Your task to perform on an android device: Search for the best gaming monitor on Best Buy Image 0: 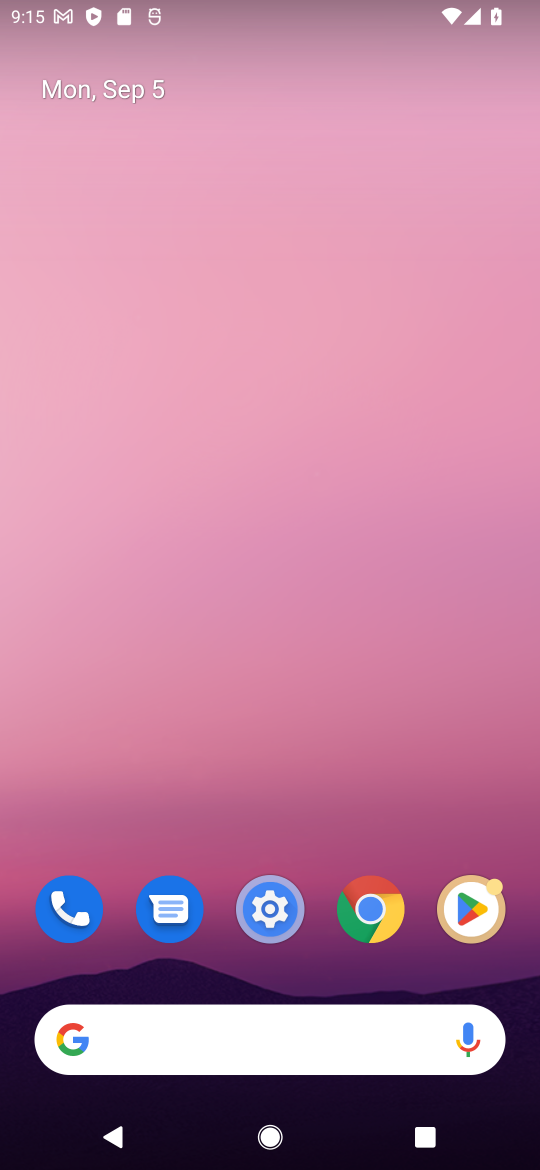
Step 0: click (365, 889)
Your task to perform on an android device: Search for the best gaming monitor on Best Buy Image 1: 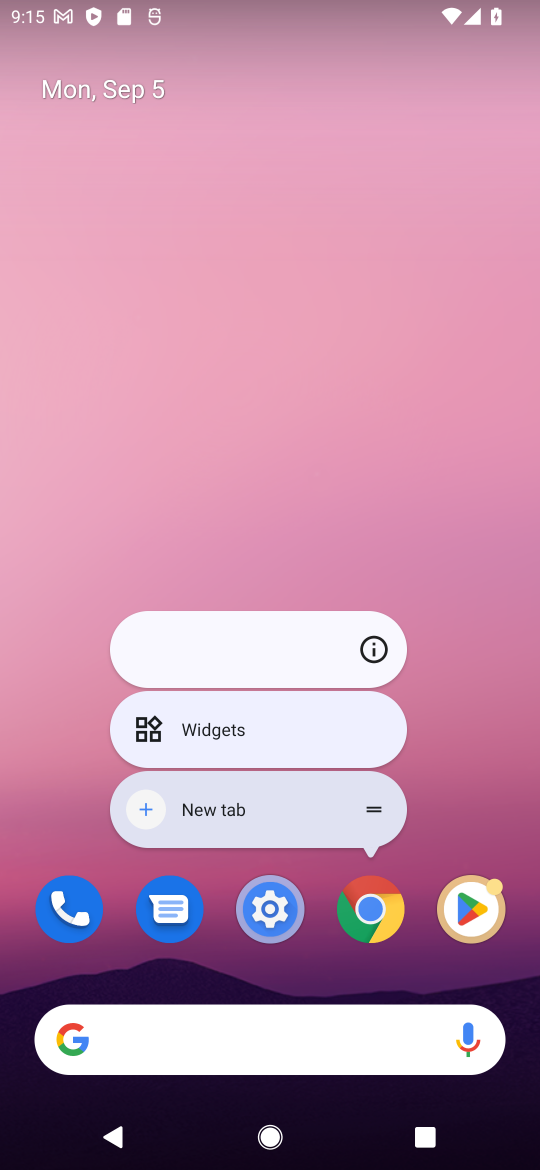
Step 1: click (365, 889)
Your task to perform on an android device: Search for the best gaming monitor on Best Buy Image 2: 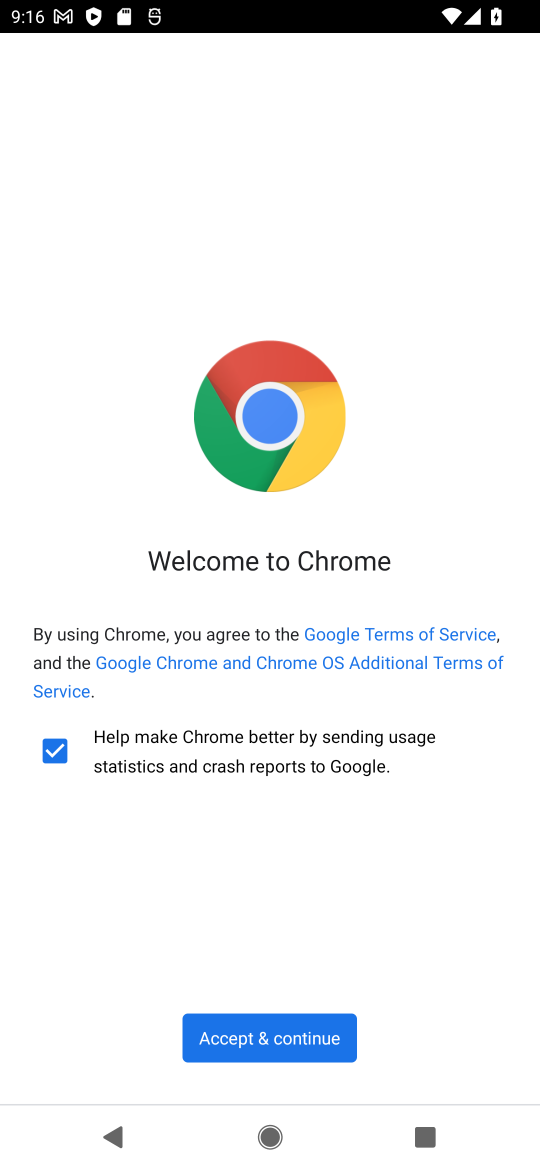
Step 2: click (280, 1032)
Your task to perform on an android device: Search for the best gaming monitor on Best Buy Image 3: 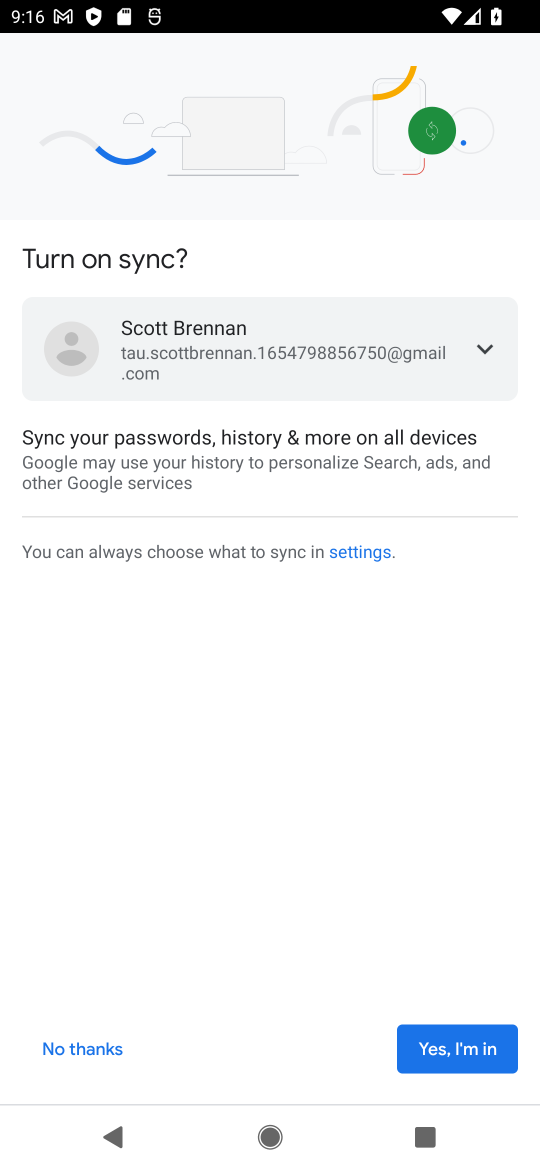
Step 3: click (496, 1049)
Your task to perform on an android device: Search for the best gaming monitor on Best Buy Image 4: 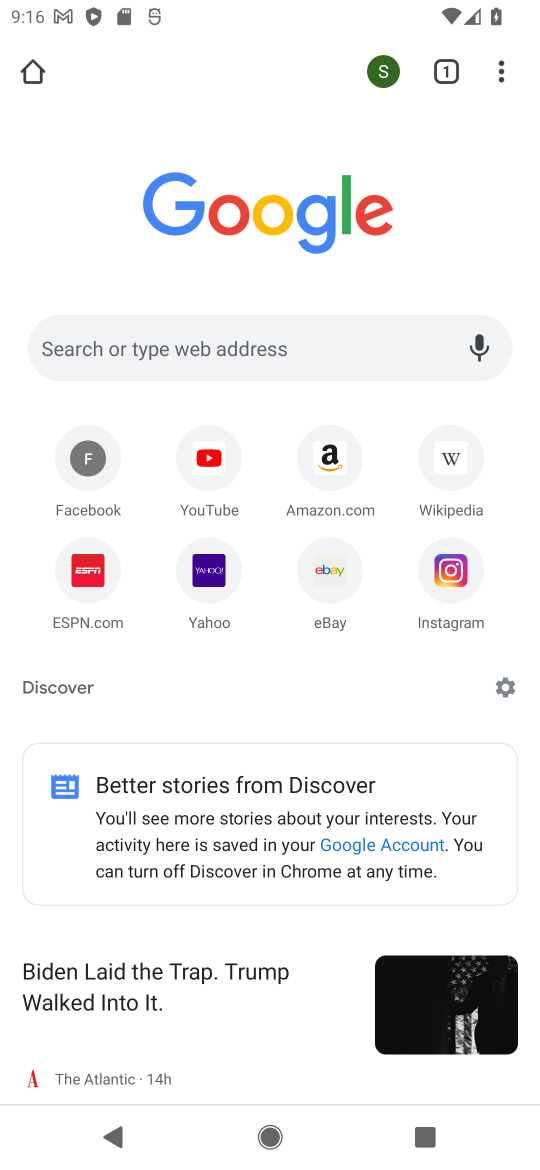
Step 4: click (251, 354)
Your task to perform on an android device: Search for the best gaming monitor on Best Buy Image 5: 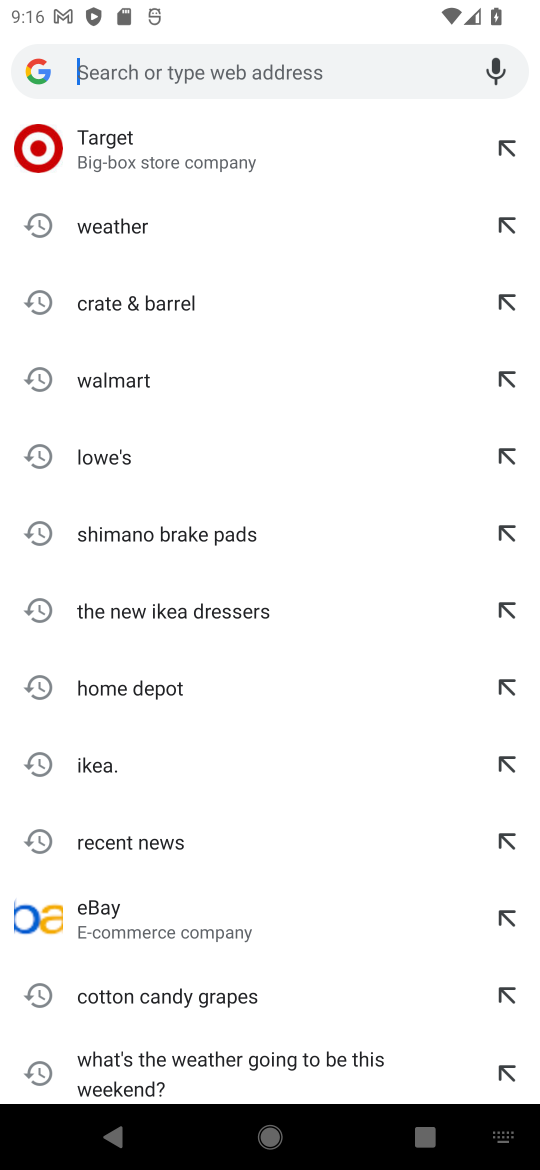
Step 5: type "best buy"
Your task to perform on an android device: Search for the best gaming monitor on Best Buy Image 6: 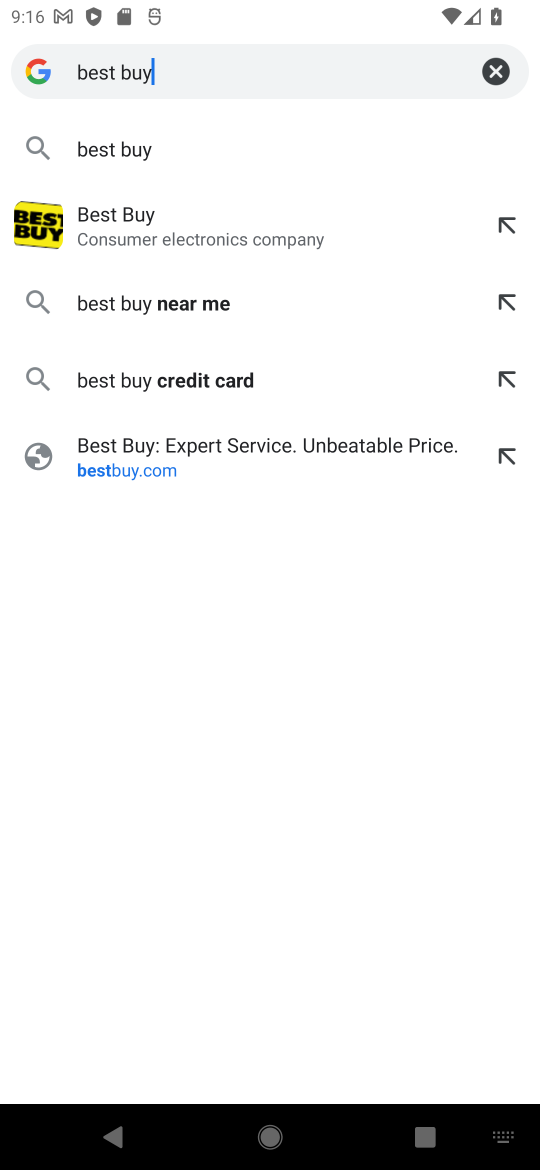
Step 6: click (233, 458)
Your task to perform on an android device: Search for the best gaming monitor on Best Buy Image 7: 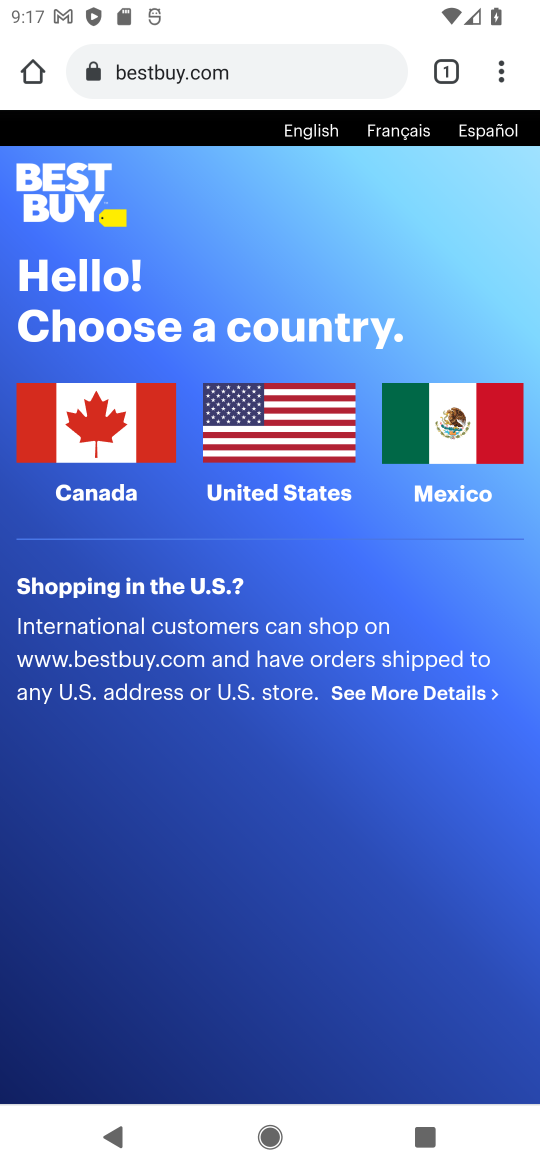
Step 7: click (313, 415)
Your task to perform on an android device: Search for the best gaming monitor on Best Buy Image 8: 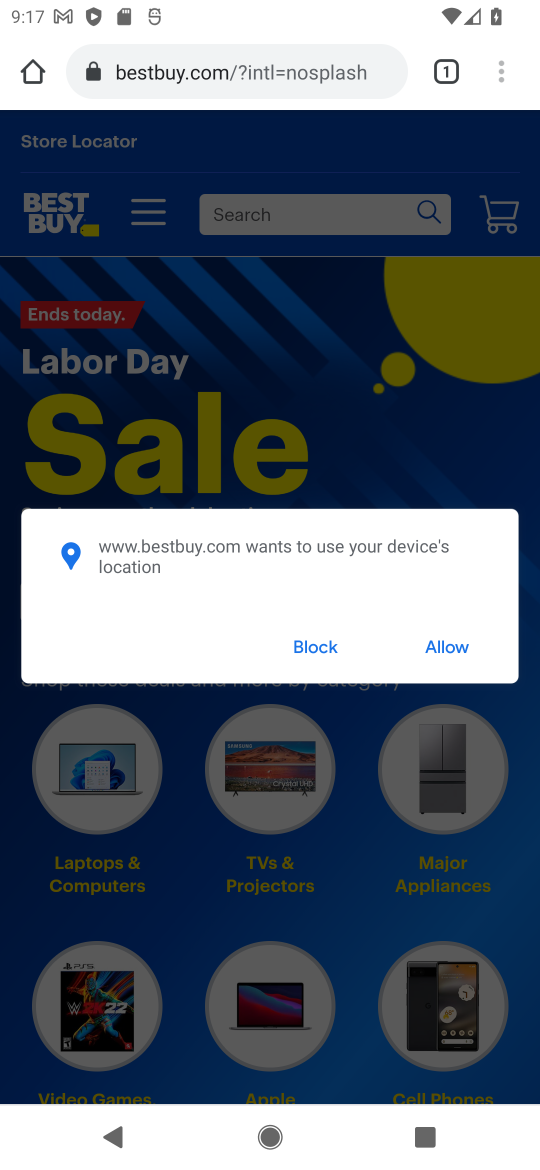
Step 8: click (437, 651)
Your task to perform on an android device: Search for the best gaming monitor on Best Buy Image 9: 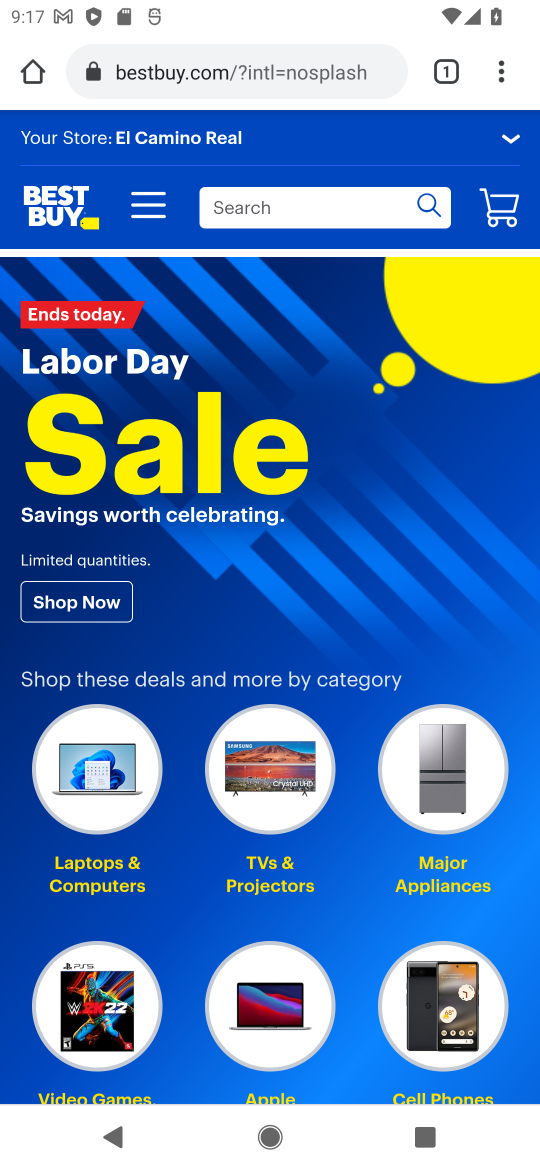
Step 9: click (317, 210)
Your task to perform on an android device: Search for the best gaming monitor on Best Buy Image 10: 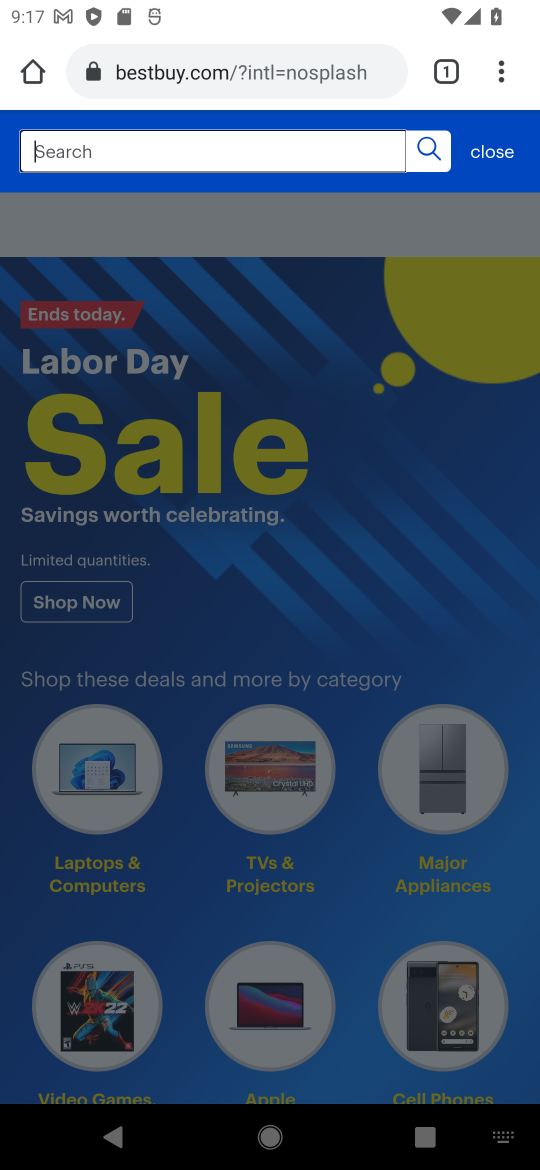
Step 10: type "best gaming monitor"
Your task to perform on an android device: Search for the best gaming monitor on Best Buy Image 11: 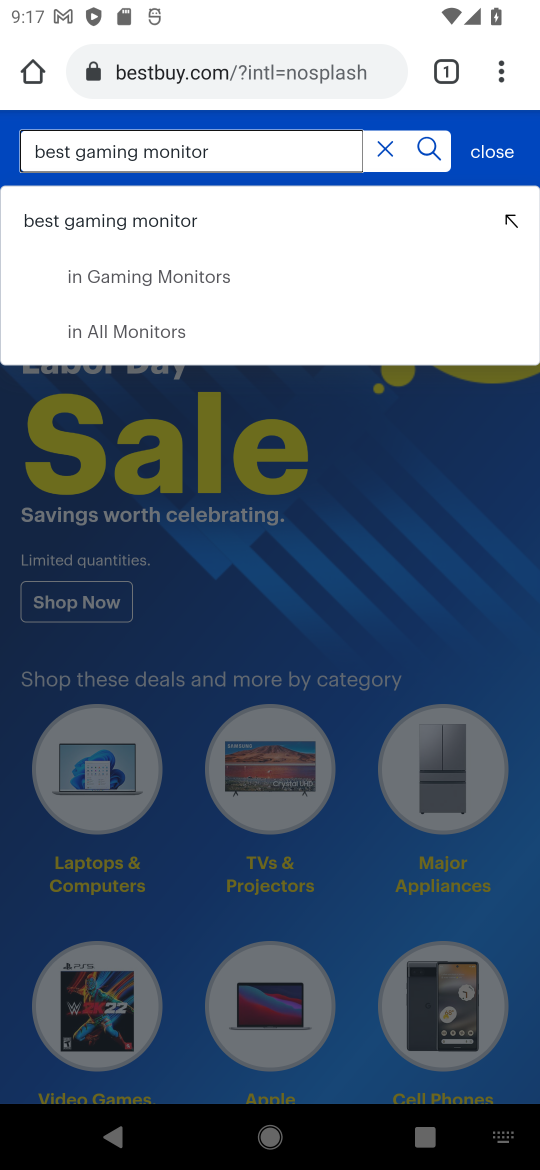
Step 11: click (298, 206)
Your task to perform on an android device: Search for the best gaming monitor on Best Buy Image 12: 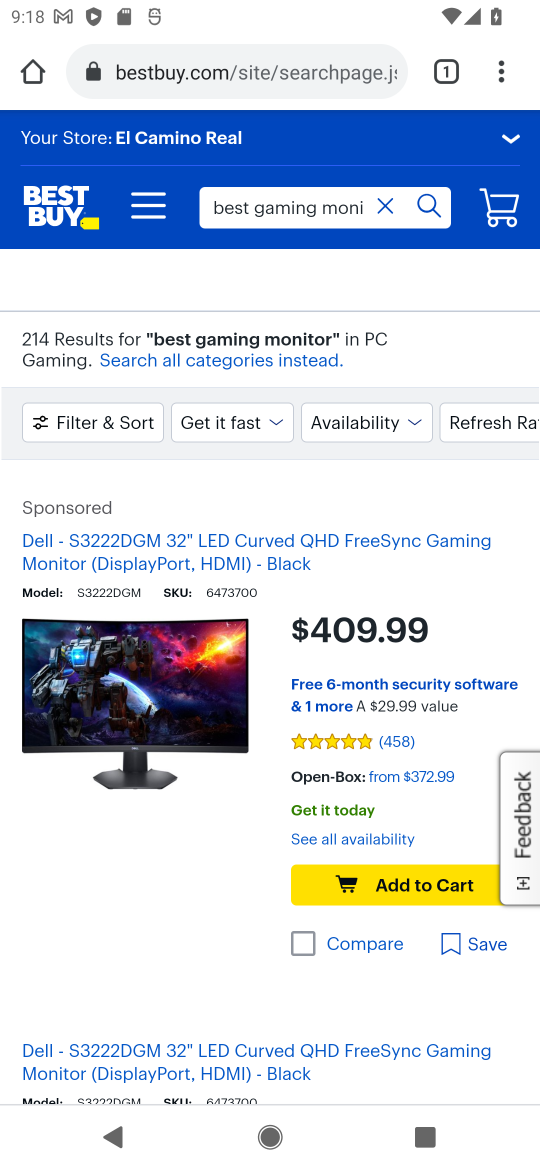
Step 12: task complete